Your task to perform on an android device: Add logitech g910 to the cart on costco Image 0: 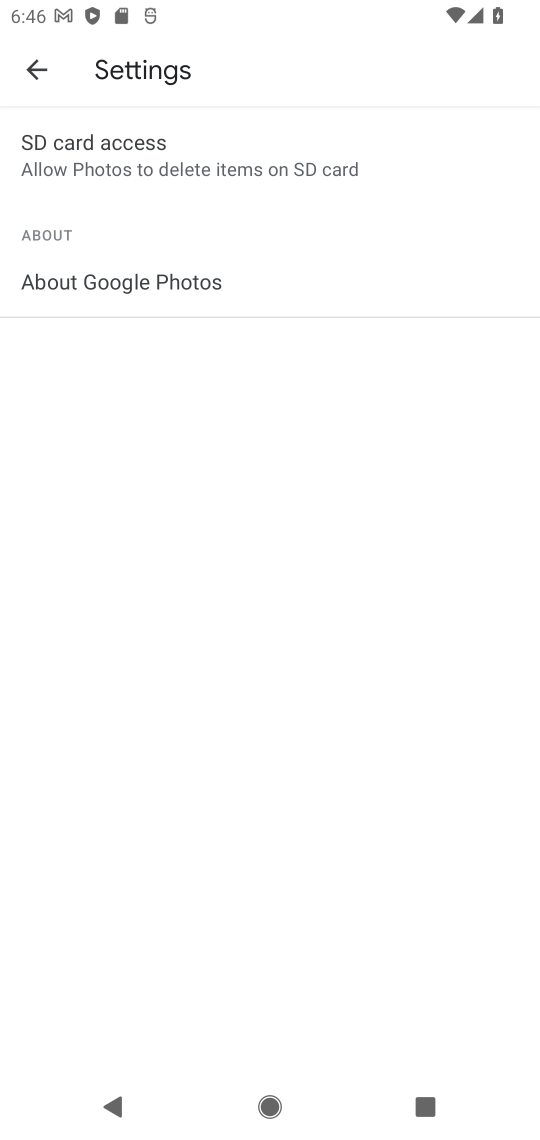
Step 0: press home button
Your task to perform on an android device: Add logitech g910 to the cart on costco Image 1: 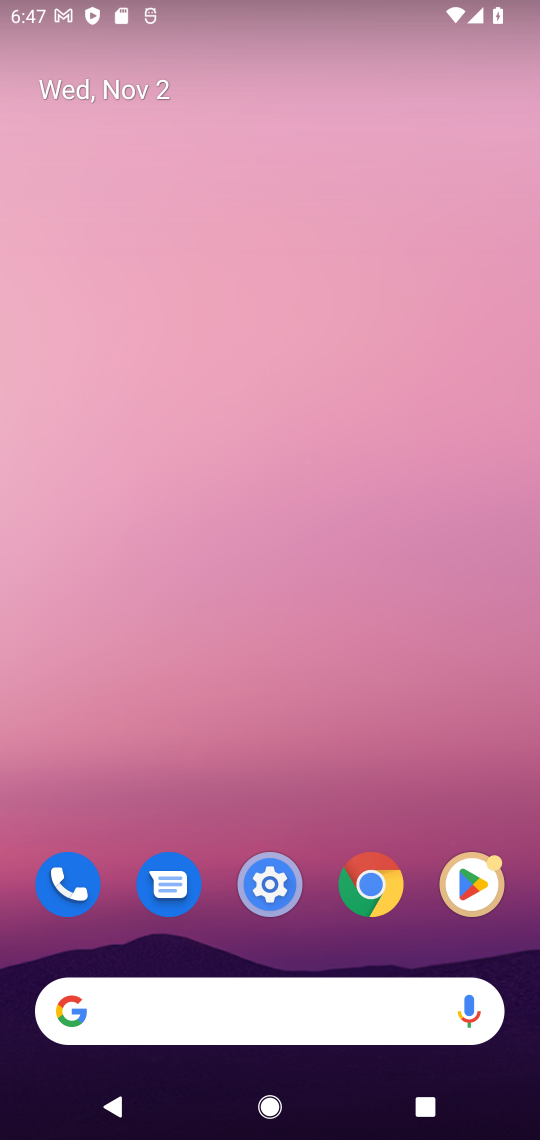
Step 1: click (248, 1028)
Your task to perform on an android device: Add logitech g910 to the cart on costco Image 2: 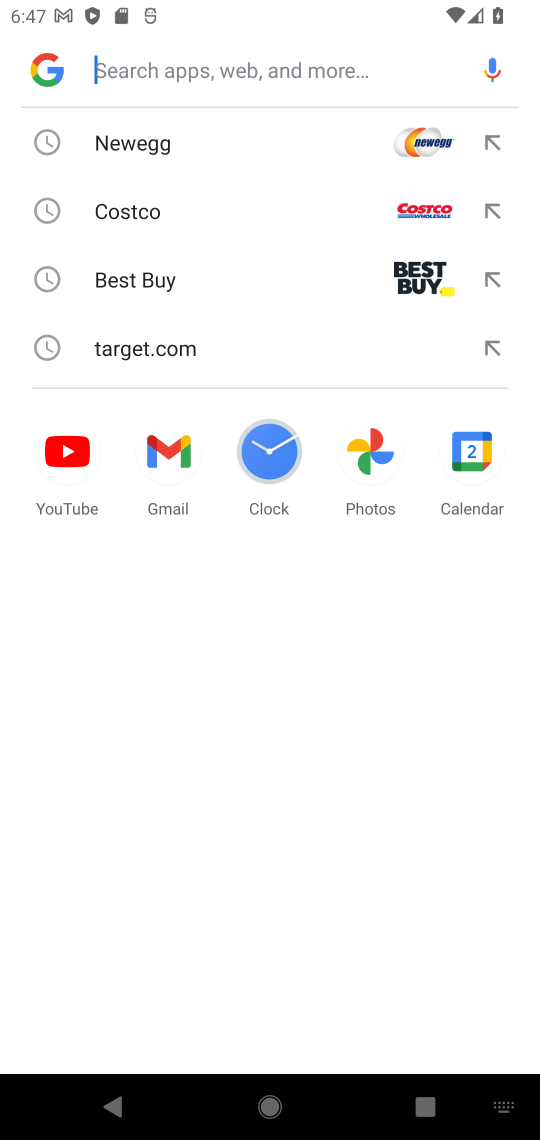
Step 2: click (141, 218)
Your task to perform on an android device: Add logitech g910 to the cart on costco Image 3: 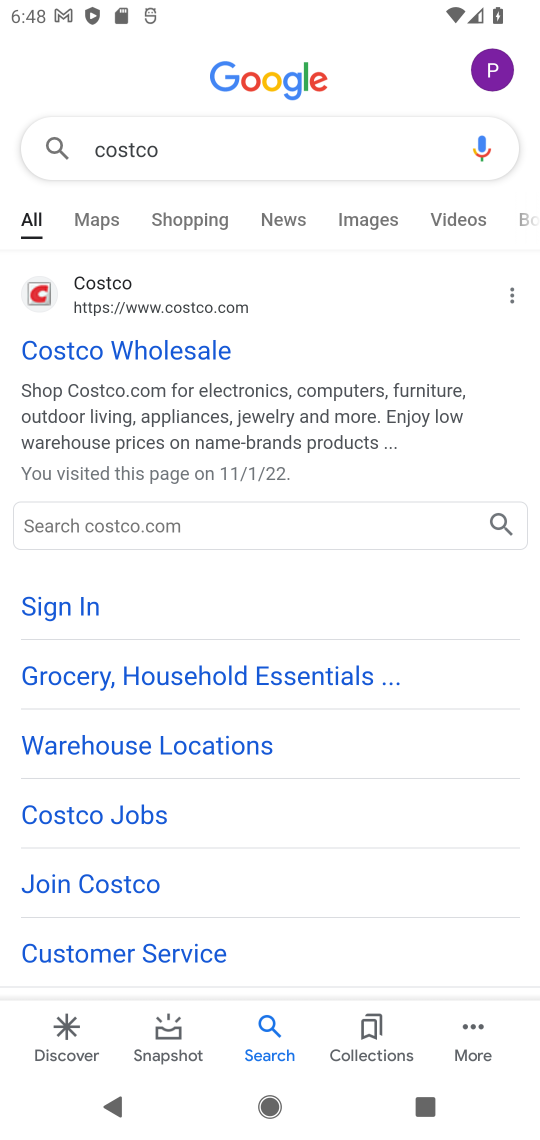
Step 3: click (190, 342)
Your task to perform on an android device: Add logitech g910 to the cart on costco Image 4: 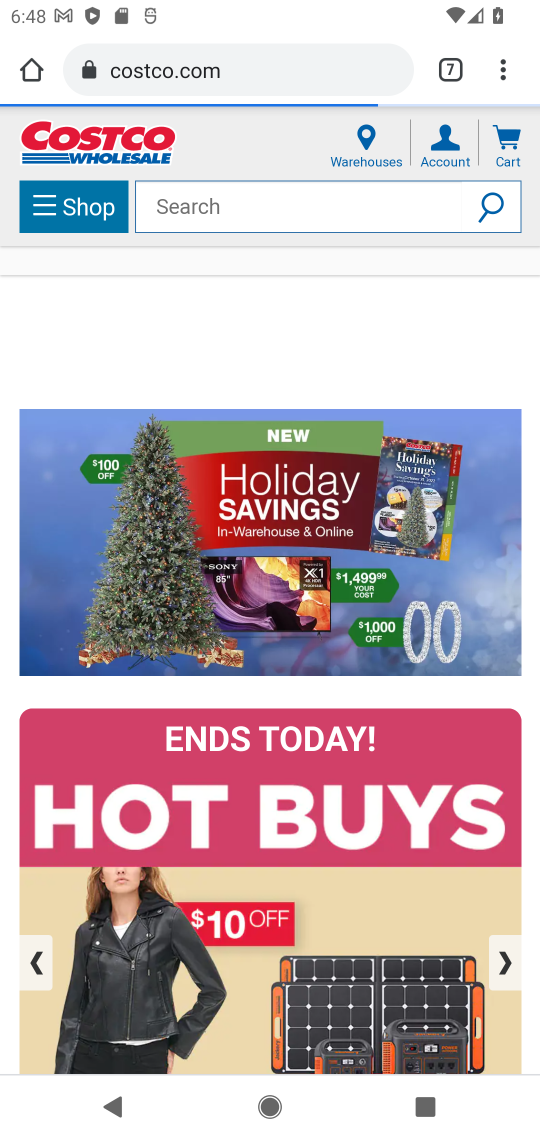
Step 4: click (222, 219)
Your task to perform on an android device: Add logitech g910 to the cart on costco Image 5: 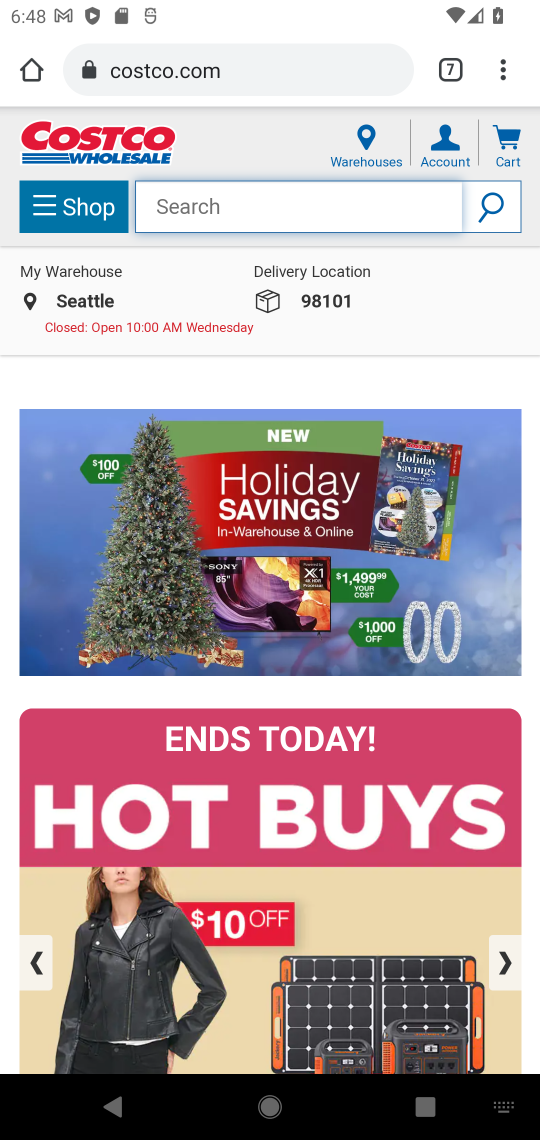
Step 5: type "logitech g910"
Your task to perform on an android device: Add logitech g910 to the cart on costco Image 6: 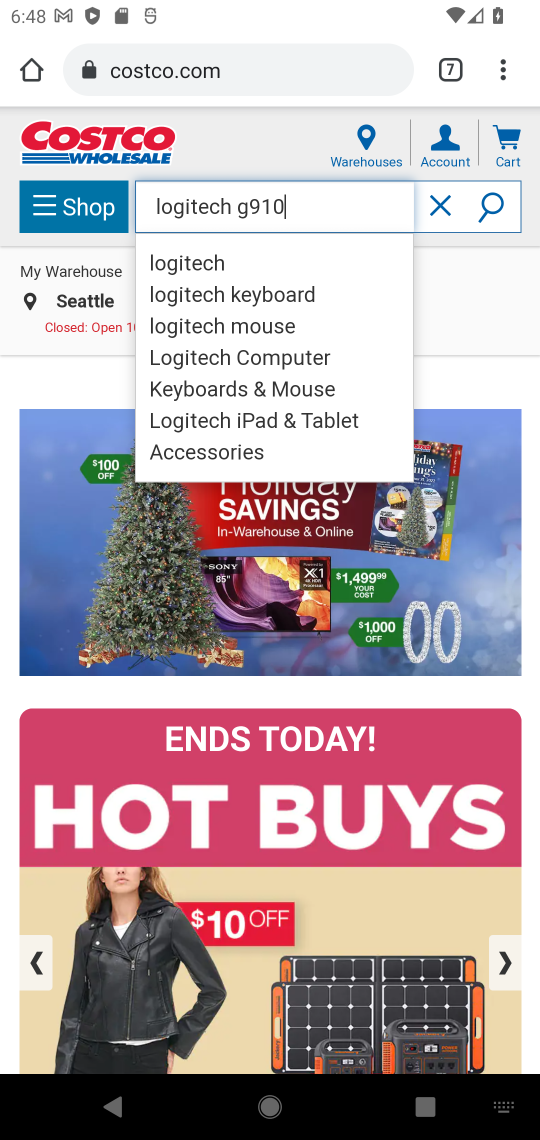
Step 6: click (485, 210)
Your task to perform on an android device: Add logitech g910 to the cart on costco Image 7: 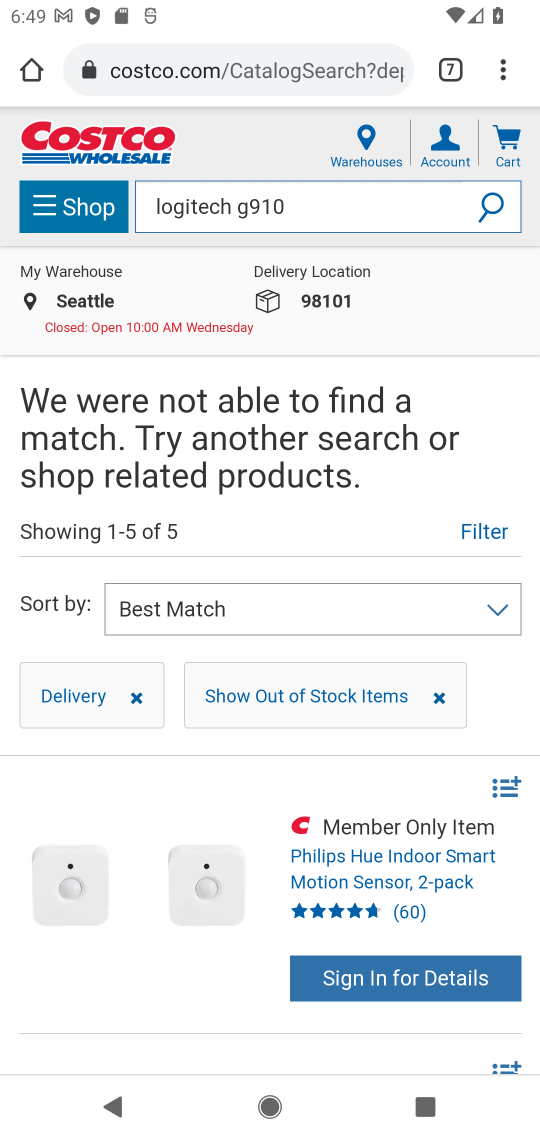
Step 7: drag from (259, 993) to (278, 370)
Your task to perform on an android device: Add logitech g910 to the cart on costco Image 8: 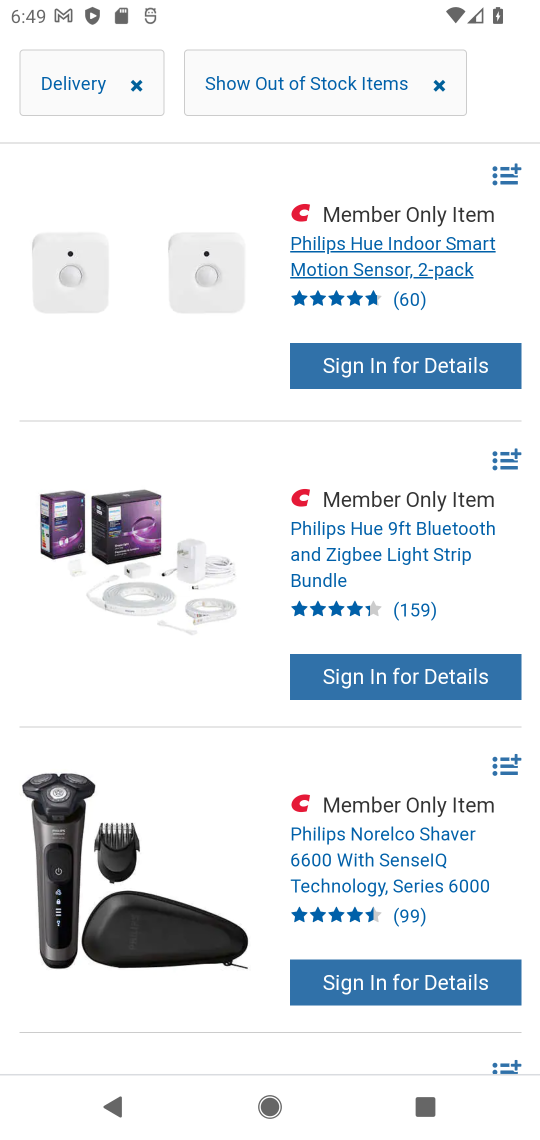
Step 8: click (363, 370)
Your task to perform on an android device: Add logitech g910 to the cart on costco Image 9: 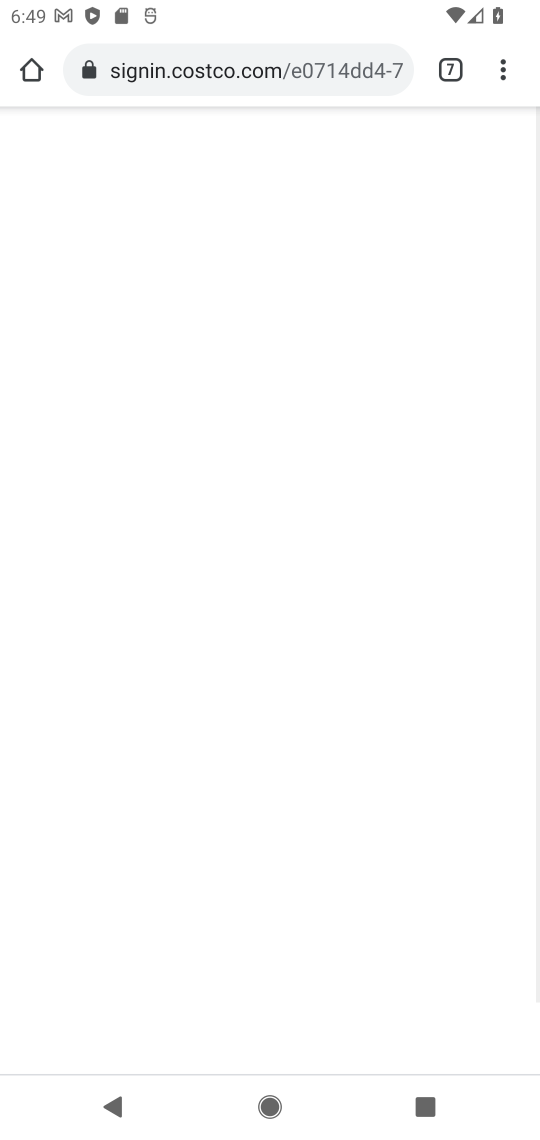
Step 9: task complete